Your task to perform on an android device: Open internet settings Image 0: 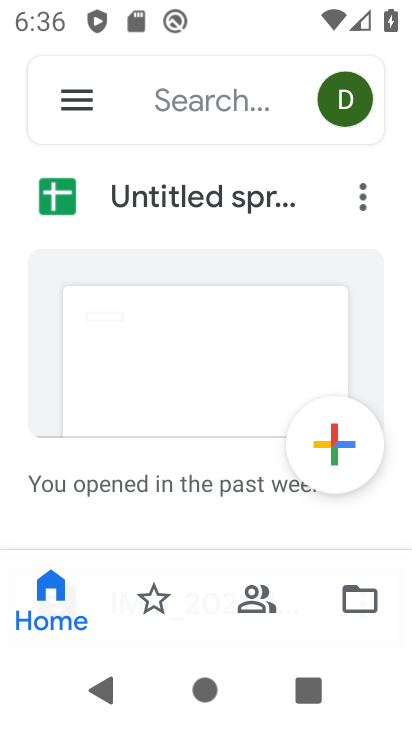
Step 0: press home button
Your task to perform on an android device: Open internet settings Image 1: 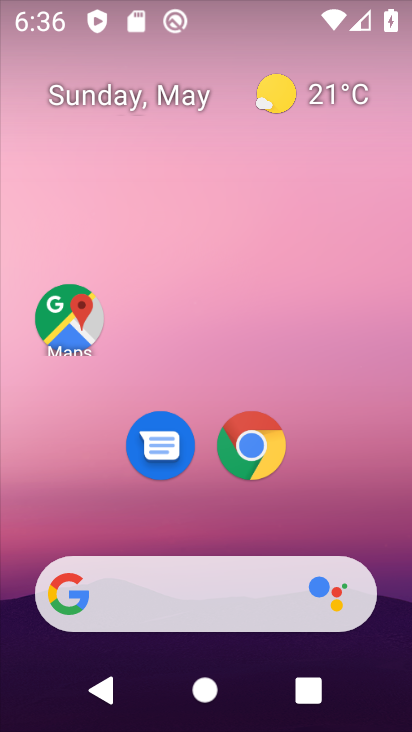
Step 1: drag from (333, 502) to (202, 12)
Your task to perform on an android device: Open internet settings Image 2: 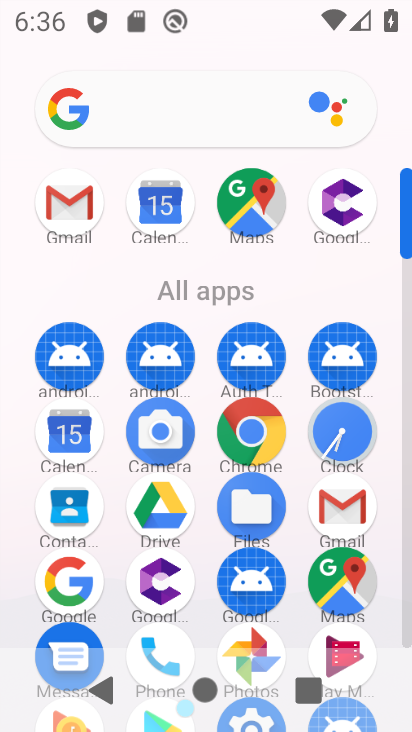
Step 2: drag from (204, 609) to (213, 258)
Your task to perform on an android device: Open internet settings Image 3: 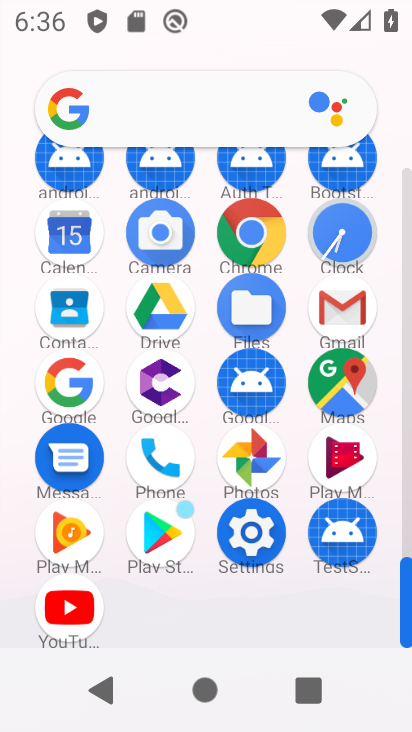
Step 3: click (243, 542)
Your task to perform on an android device: Open internet settings Image 4: 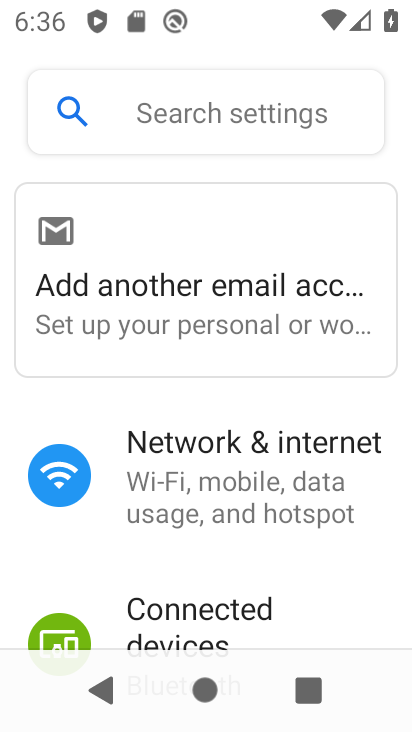
Step 4: click (227, 445)
Your task to perform on an android device: Open internet settings Image 5: 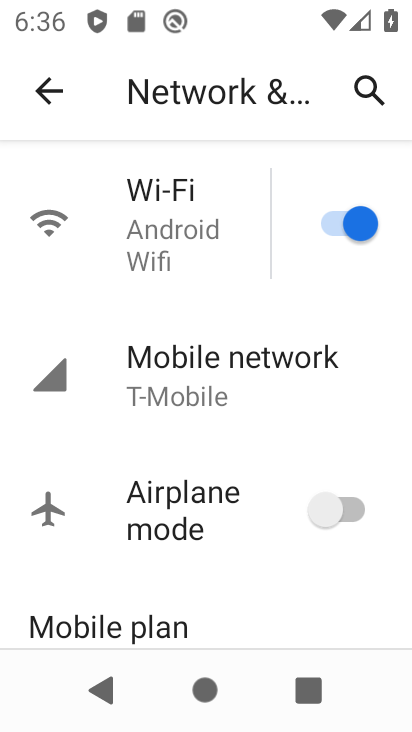
Step 5: task complete